Your task to perform on an android device: change the clock style Image 0: 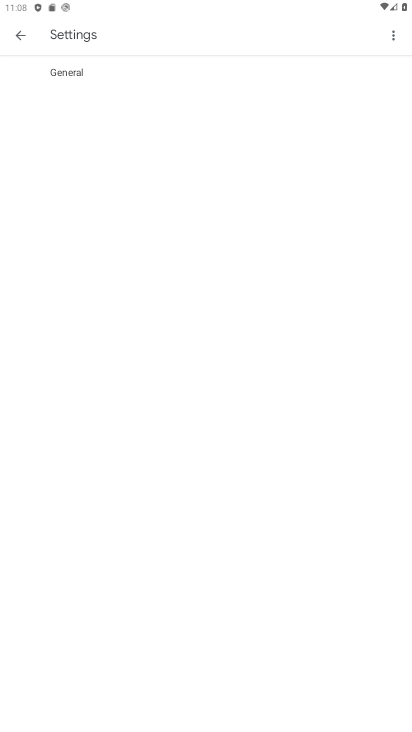
Step 0: press home button
Your task to perform on an android device: change the clock style Image 1: 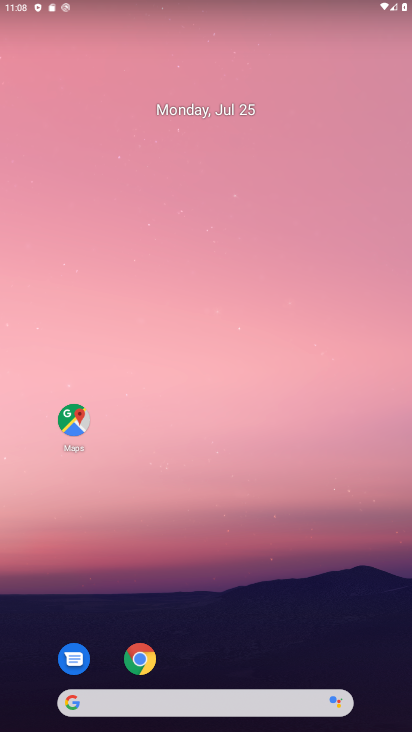
Step 1: drag from (40, 682) to (297, 719)
Your task to perform on an android device: change the clock style Image 2: 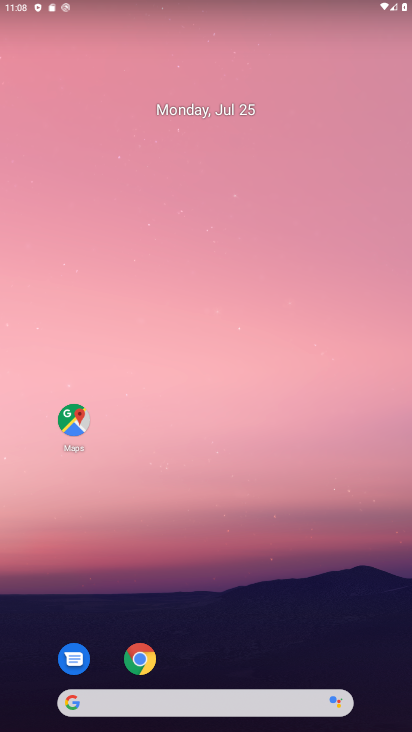
Step 2: drag from (41, 692) to (318, 266)
Your task to perform on an android device: change the clock style Image 3: 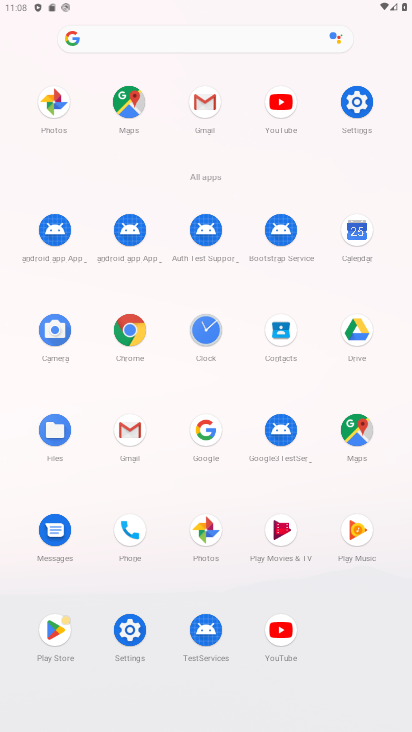
Step 3: click (193, 341)
Your task to perform on an android device: change the clock style Image 4: 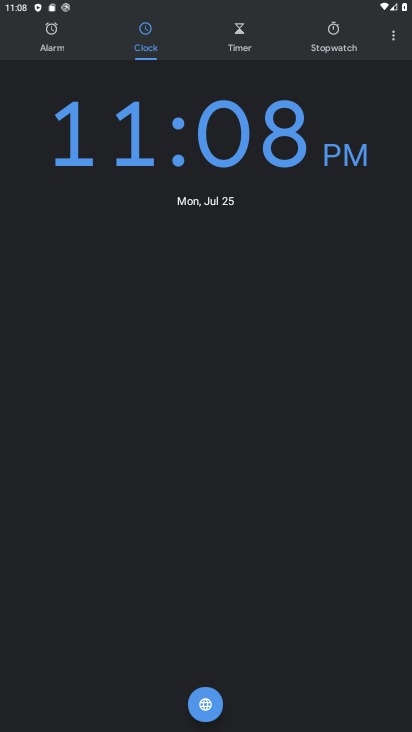
Step 4: click (399, 34)
Your task to perform on an android device: change the clock style Image 5: 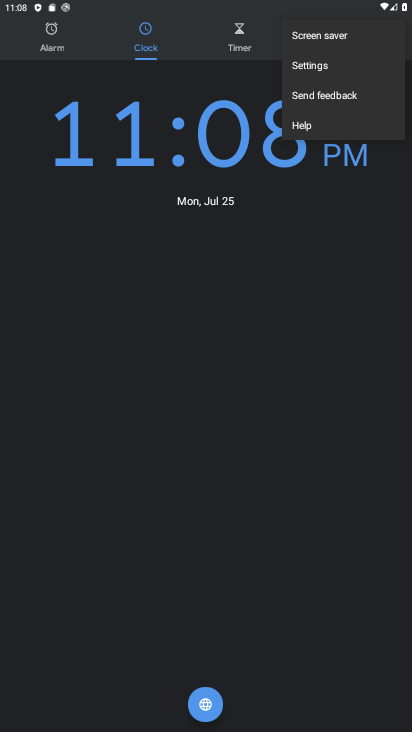
Step 5: click (314, 71)
Your task to perform on an android device: change the clock style Image 6: 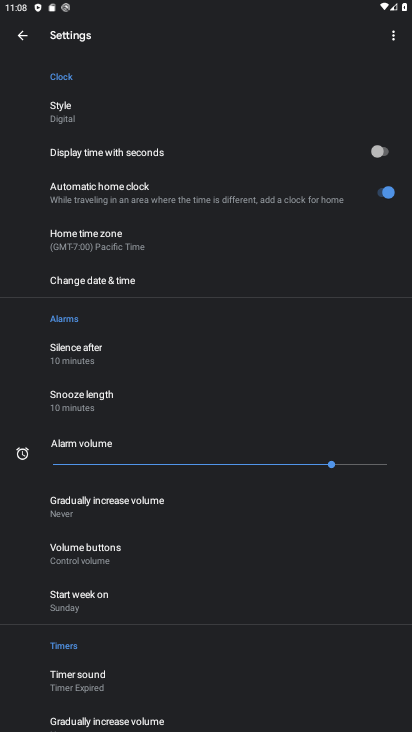
Step 6: click (68, 120)
Your task to perform on an android device: change the clock style Image 7: 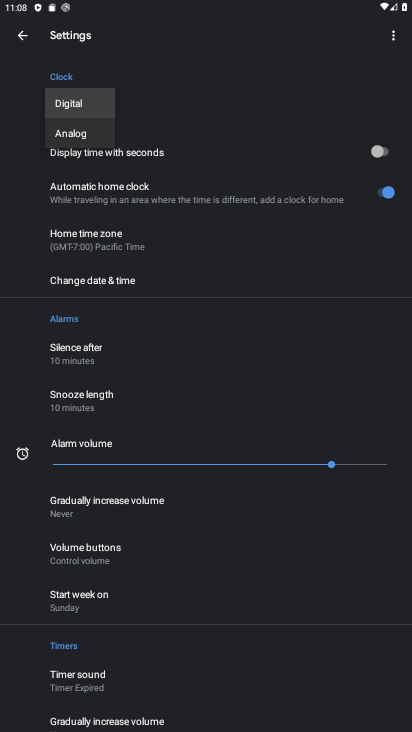
Step 7: click (68, 132)
Your task to perform on an android device: change the clock style Image 8: 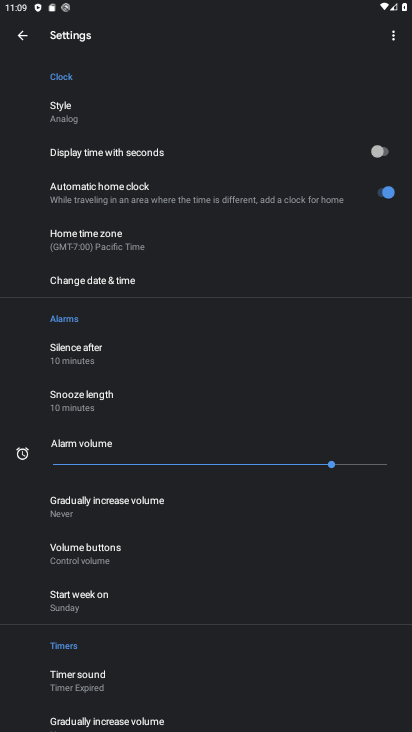
Step 8: task complete